Your task to perform on an android device: Open settings on Google Maps Image 0: 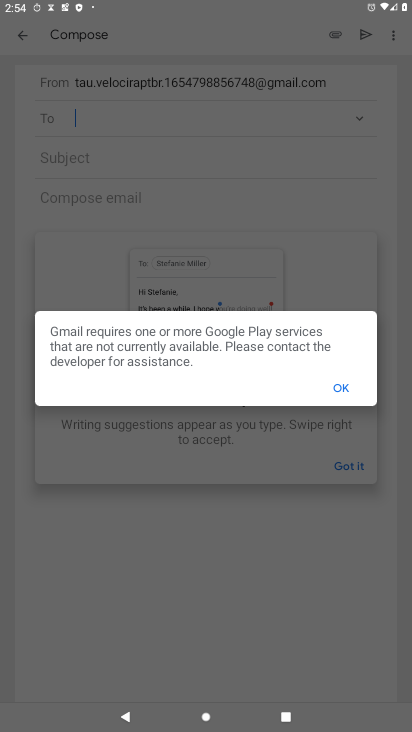
Step 0: press home button
Your task to perform on an android device: Open settings on Google Maps Image 1: 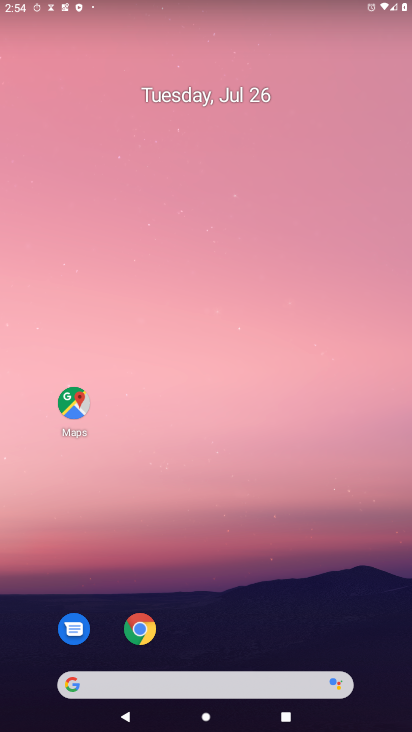
Step 1: drag from (234, 691) to (376, 61)
Your task to perform on an android device: Open settings on Google Maps Image 2: 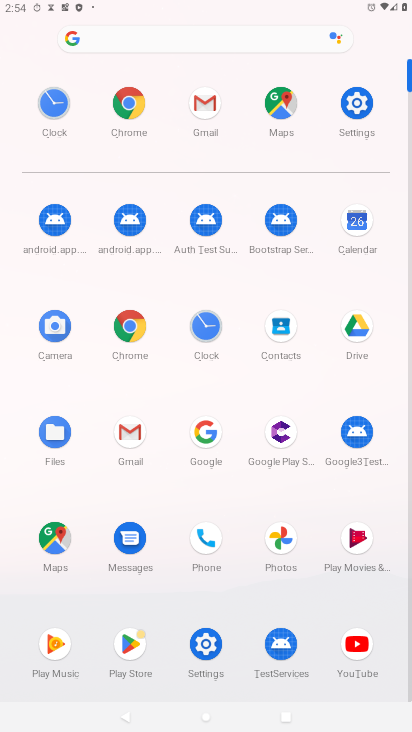
Step 2: click (49, 534)
Your task to perform on an android device: Open settings on Google Maps Image 3: 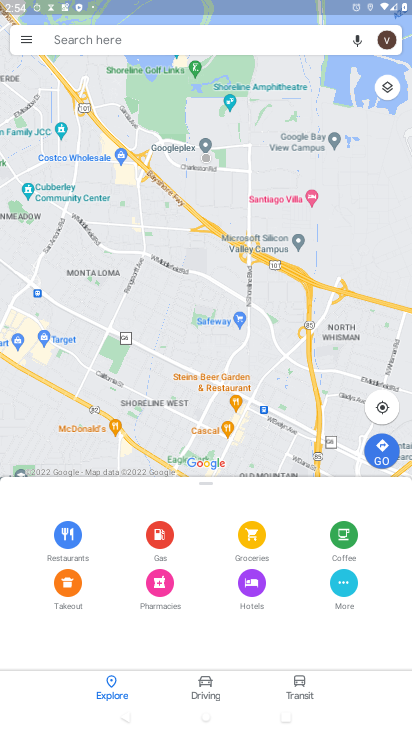
Step 3: click (33, 43)
Your task to perform on an android device: Open settings on Google Maps Image 4: 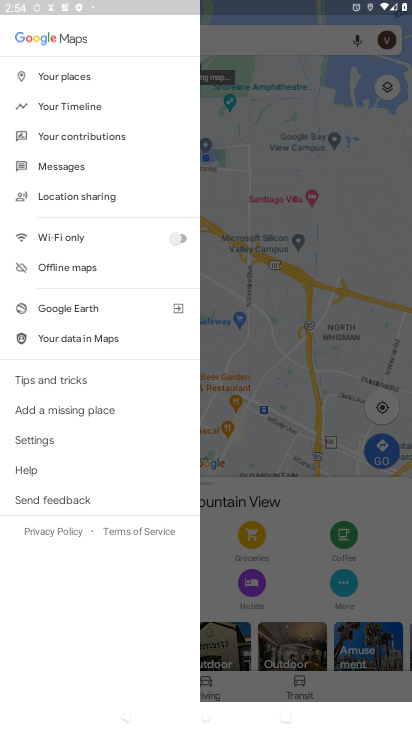
Step 4: click (48, 443)
Your task to perform on an android device: Open settings on Google Maps Image 5: 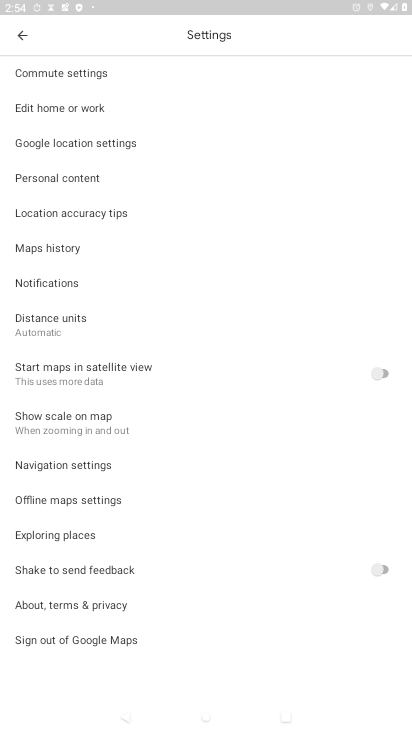
Step 5: task complete